Your task to perform on an android device: turn on improve location accuracy Image 0: 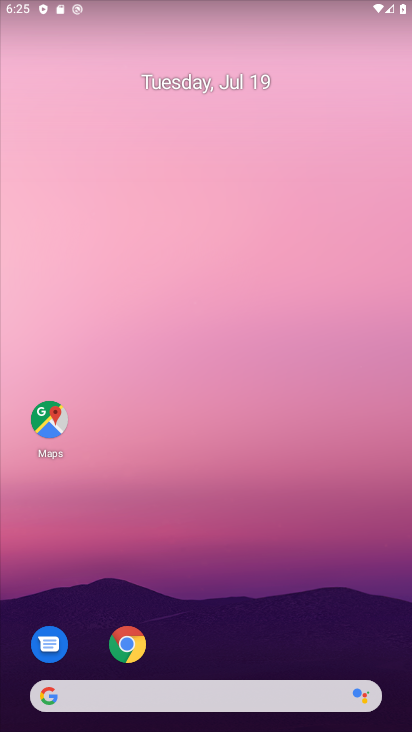
Step 0: drag from (246, 517) to (232, 85)
Your task to perform on an android device: turn on improve location accuracy Image 1: 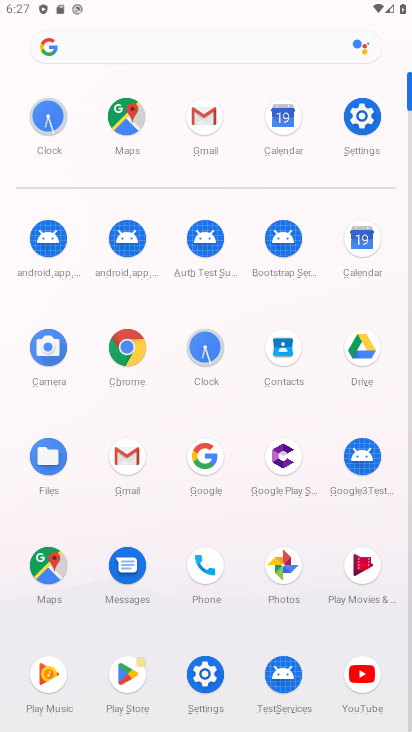
Step 1: click (197, 668)
Your task to perform on an android device: turn on improve location accuracy Image 2: 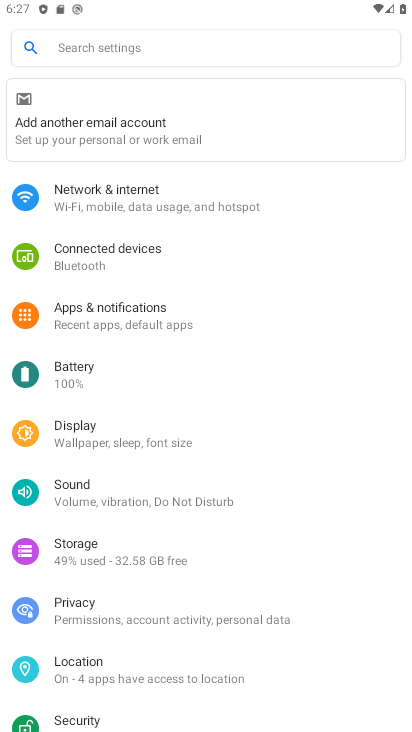
Step 2: click (71, 666)
Your task to perform on an android device: turn on improve location accuracy Image 3: 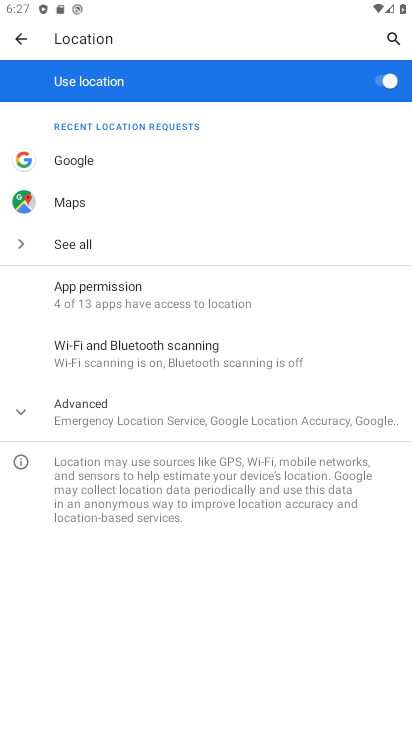
Step 3: click (71, 409)
Your task to perform on an android device: turn on improve location accuracy Image 4: 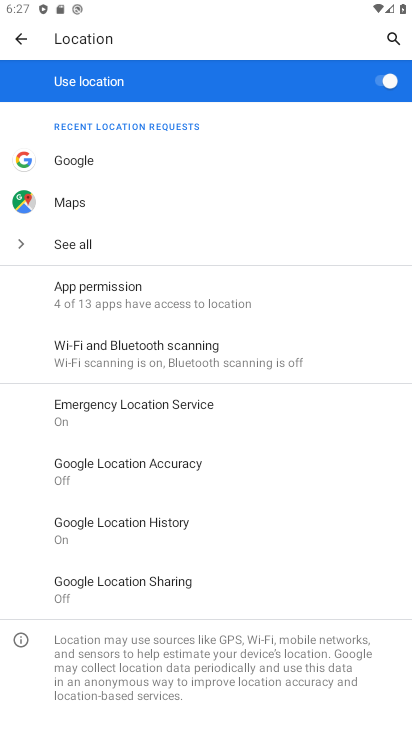
Step 4: click (137, 465)
Your task to perform on an android device: turn on improve location accuracy Image 5: 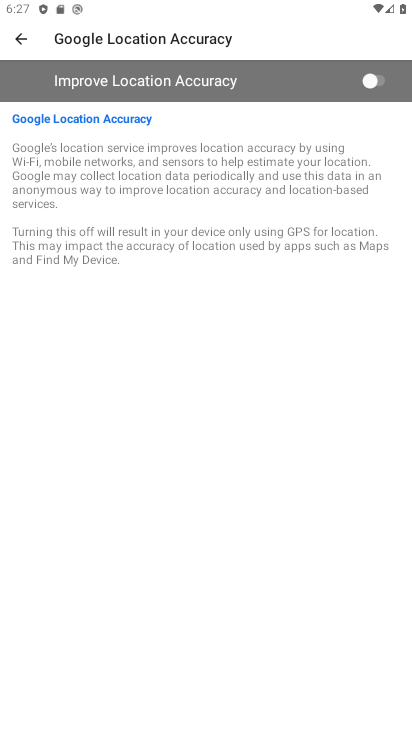
Step 5: click (373, 74)
Your task to perform on an android device: turn on improve location accuracy Image 6: 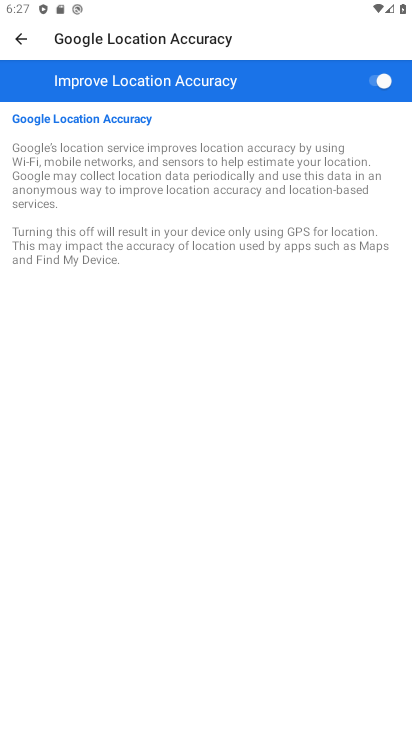
Step 6: task complete